Your task to perform on an android device: What's the weather? Image 0: 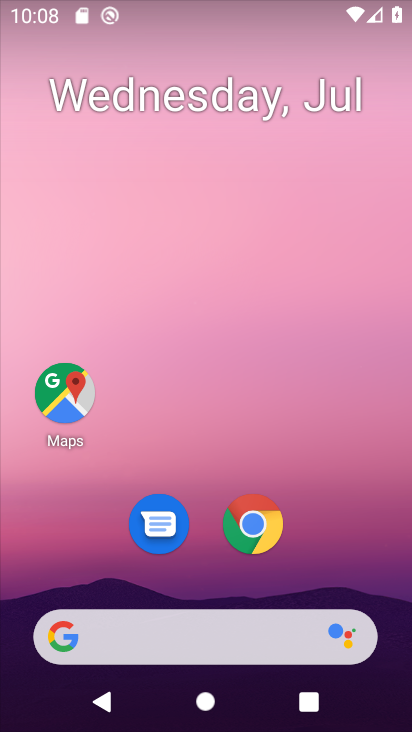
Step 0: click (276, 635)
Your task to perform on an android device: What's the weather? Image 1: 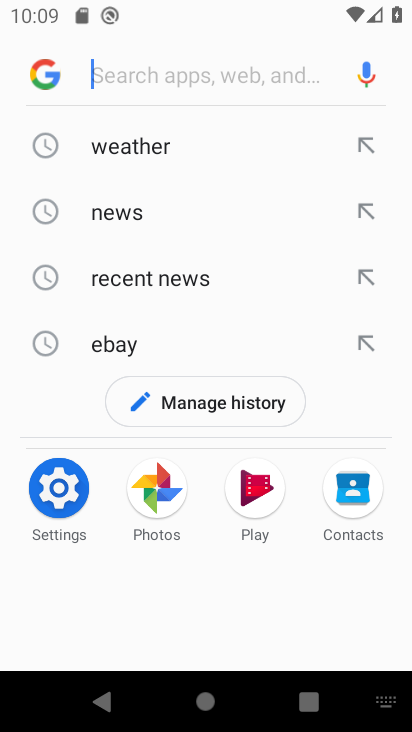
Step 1: click (160, 144)
Your task to perform on an android device: What's the weather? Image 2: 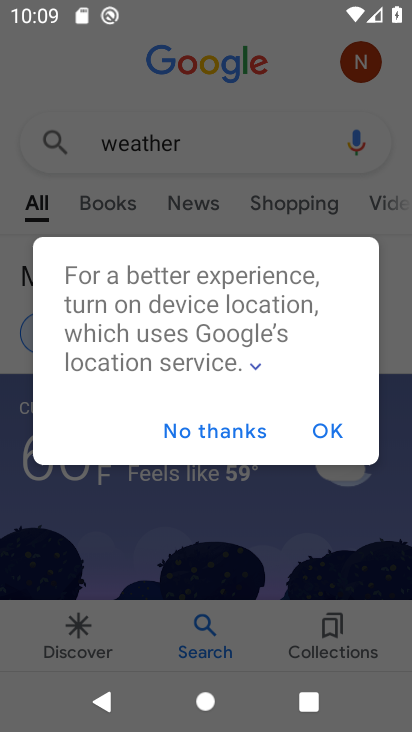
Step 2: click (334, 429)
Your task to perform on an android device: What's the weather? Image 3: 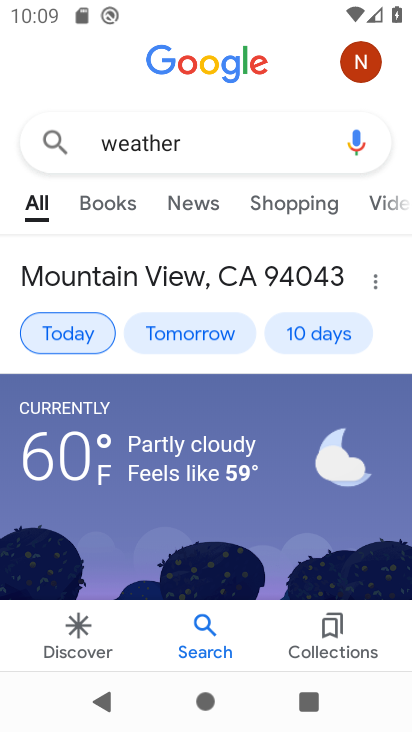
Step 3: click (89, 334)
Your task to perform on an android device: What's the weather? Image 4: 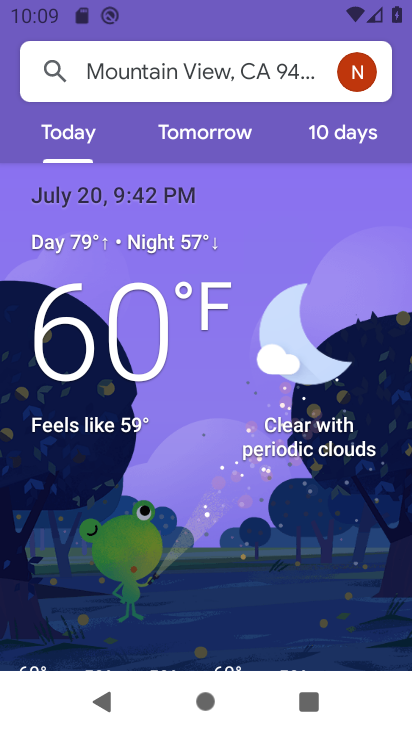
Step 4: task complete